Your task to perform on an android device: Go to network settings Image 0: 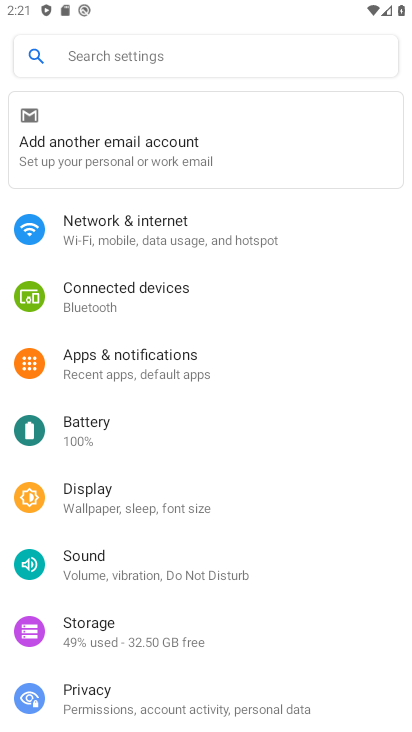
Step 0: press home button
Your task to perform on an android device: Go to network settings Image 1: 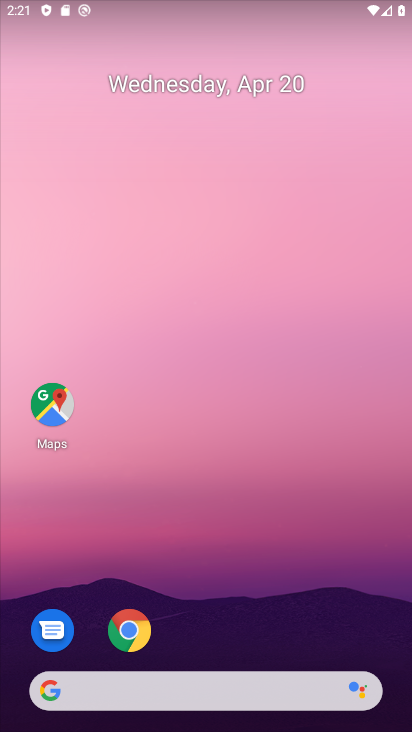
Step 1: drag from (225, 584) to (172, 111)
Your task to perform on an android device: Go to network settings Image 2: 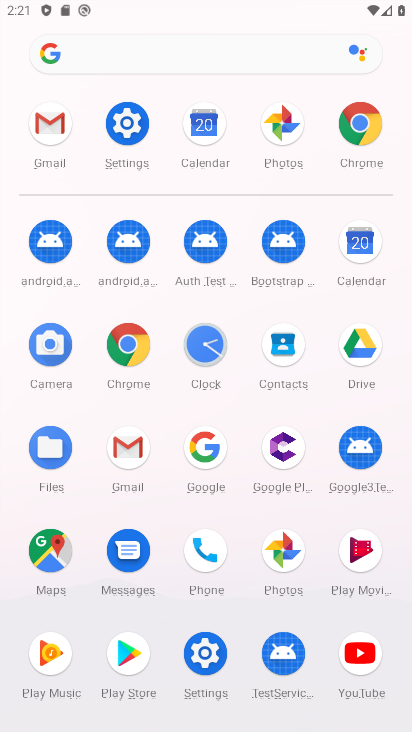
Step 2: click (130, 117)
Your task to perform on an android device: Go to network settings Image 3: 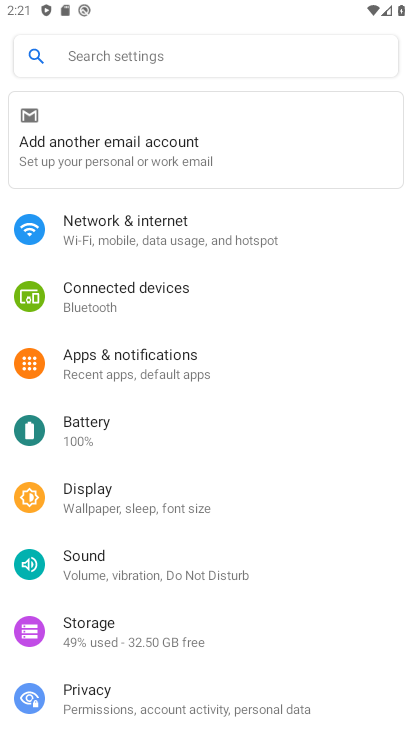
Step 3: click (155, 242)
Your task to perform on an android device: Go to network settings Image 4: 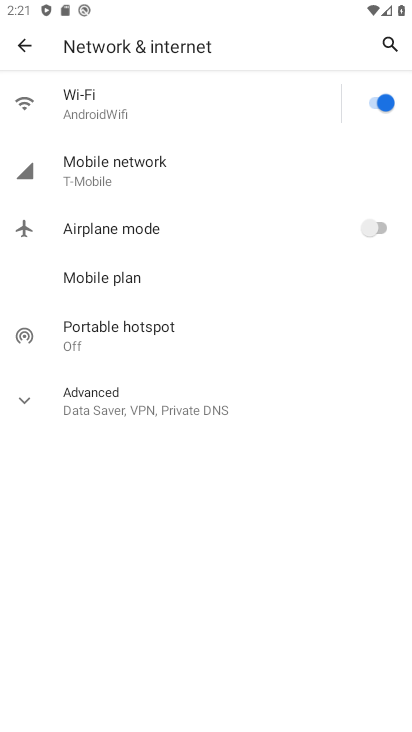
Step 4: click (100, 177)
Your task to perform on an android device: Go to network settings Image 5: 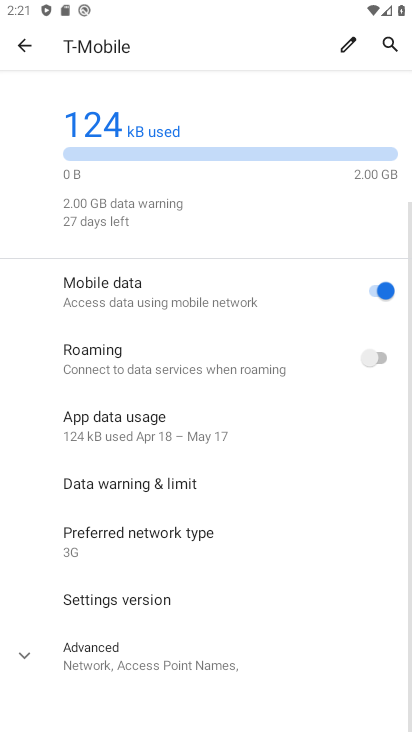
Step 5: drag from (115, 634) to (106, 176)
Your task to perform on an android device: Go to network settings Image 6: 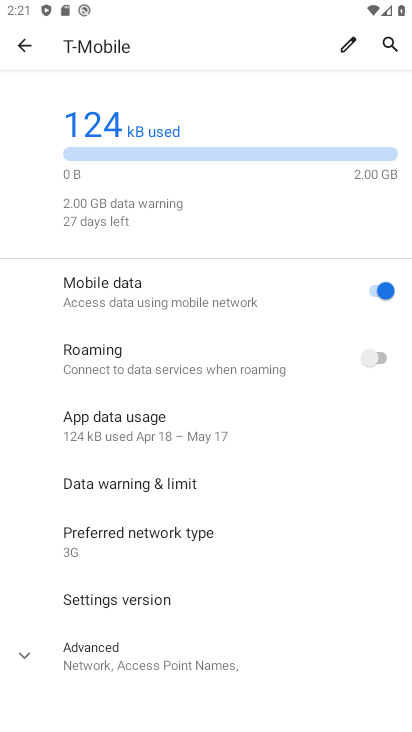
Step 6: click (103, 653)
Your task to perform on an android device: Go to network settings Image 7: 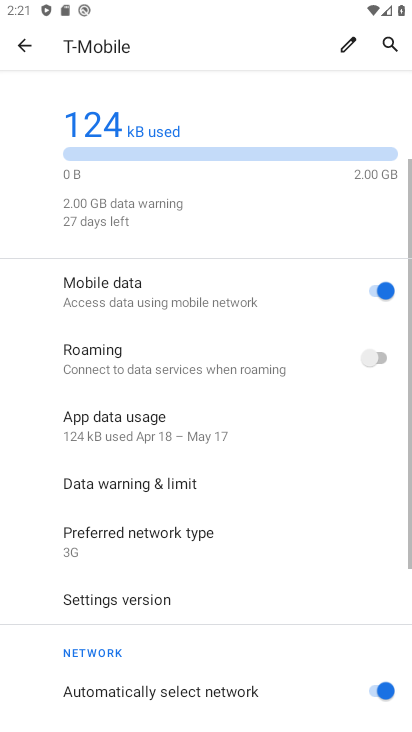
Step 7: task complete